Your task to perform on an android device: move a message to another label in the gmail app Image 0: 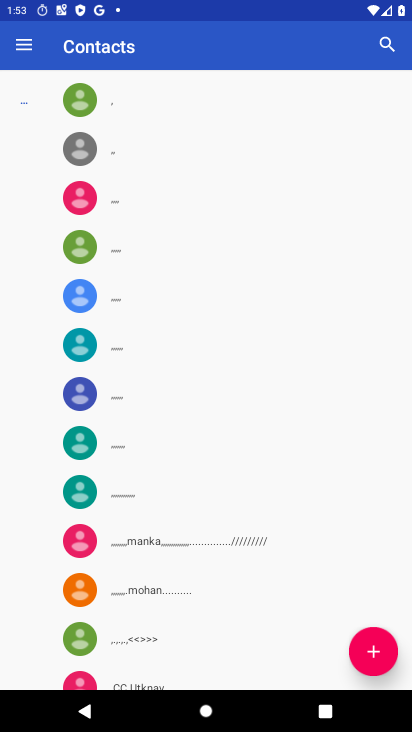
Step 0: press home button
Your task to perform on an android device: move a message to another label in the gmail app Image 1: 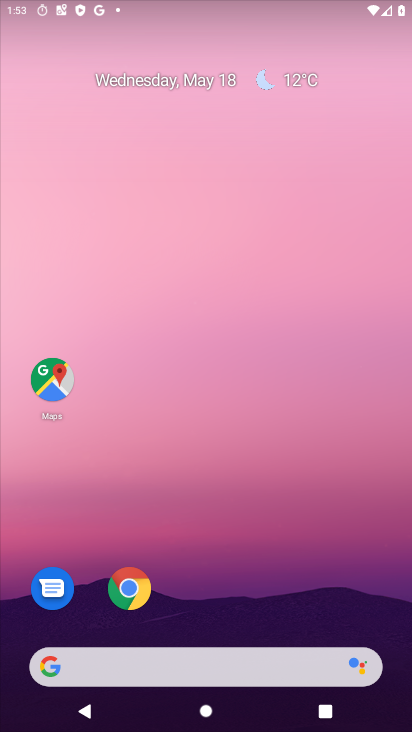
Step 1: drag from (185, 608) to (229, 48)
Your task to perform on an android device: move a message to another label in the gmail app Image 2: 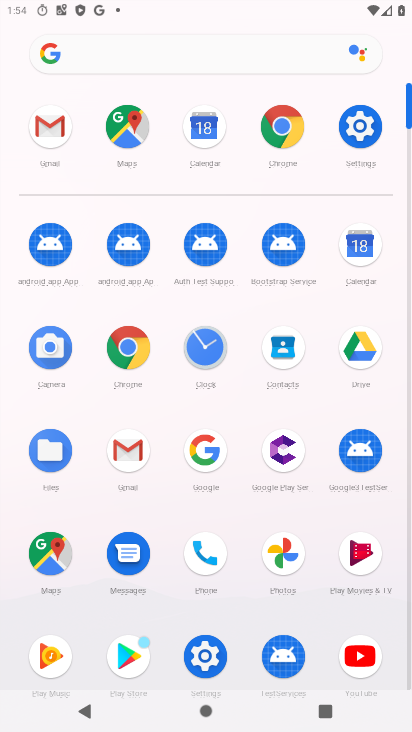
Step 2: click (115, 447)
Your task to perform on an android device: move a message to another label in the gmail app Image 3: 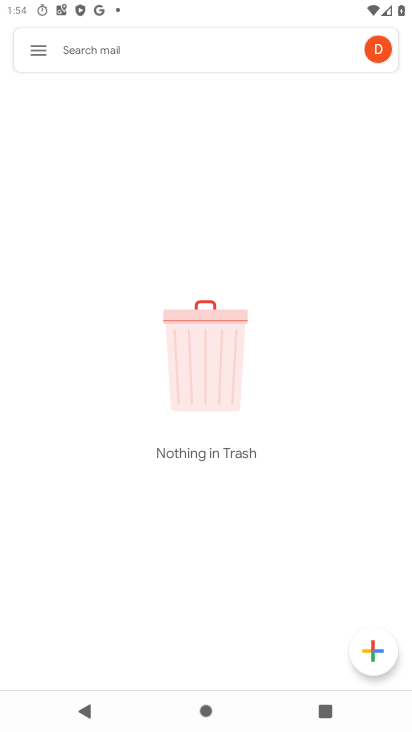
Step 3: click (40, 51)
Your task to perform on an android device: move a message to another label in the gmail app Image 4: 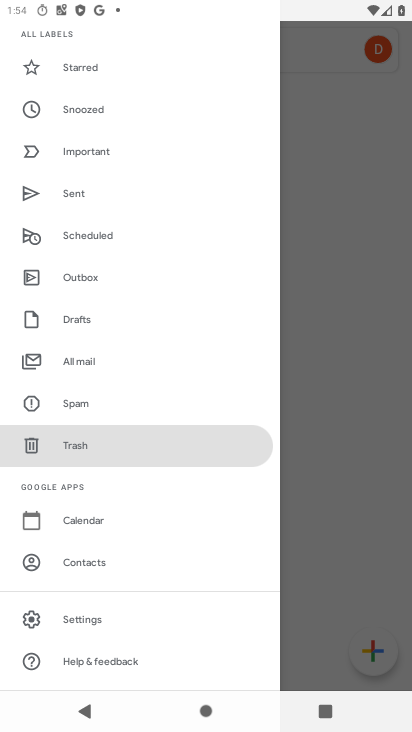
Step 4: task complete